Your task to perform on an android device: toggle notifications settings in the gmail app Image 0: 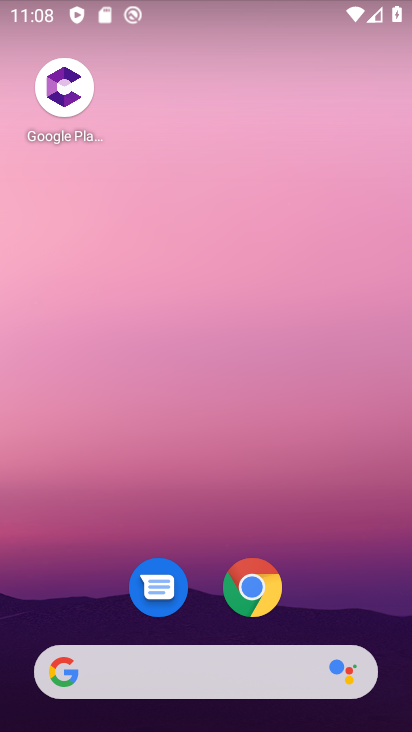
Step 0: drag from (348, 585) to (294, 11)
Your task to perform on an android device: toggle notifications settings in the gmail app Image 1: 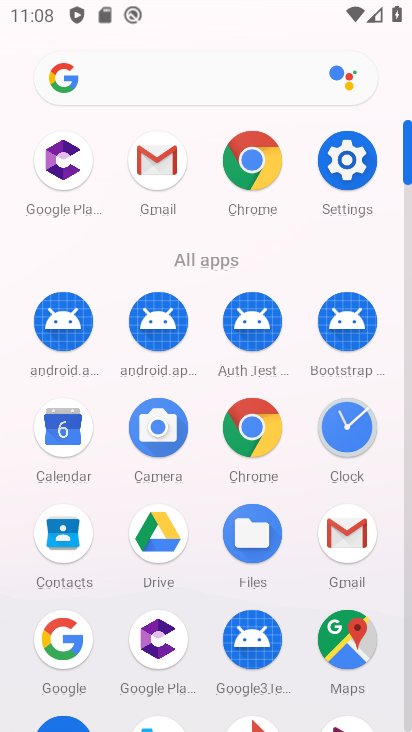
Step 1: click (347, 527)
Your task to perform on an android device: toggle notifications settings in the gmail app Image 2: 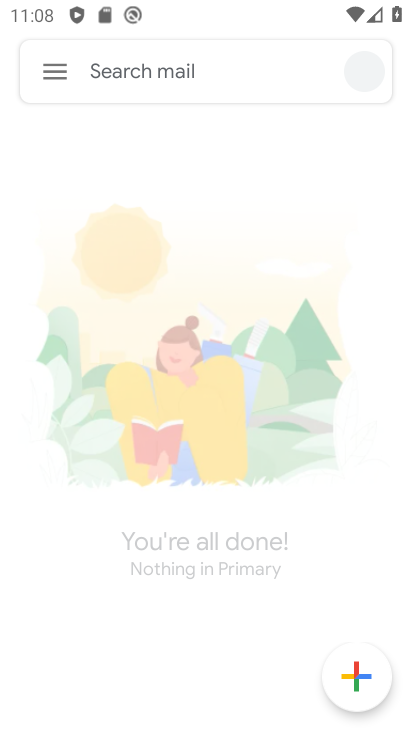
Step 2: click (55, 64)
Your task to perform on an android device: toggle notifications settings in the gmail app Image 3: 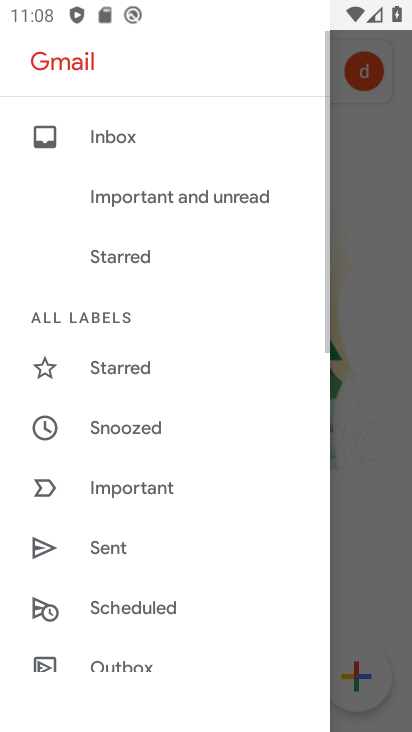
Step 3: drag from (199, 608) to (219, 193)
Your task to perform on an android device: toggle notifications settings in the gmail app Image 4: 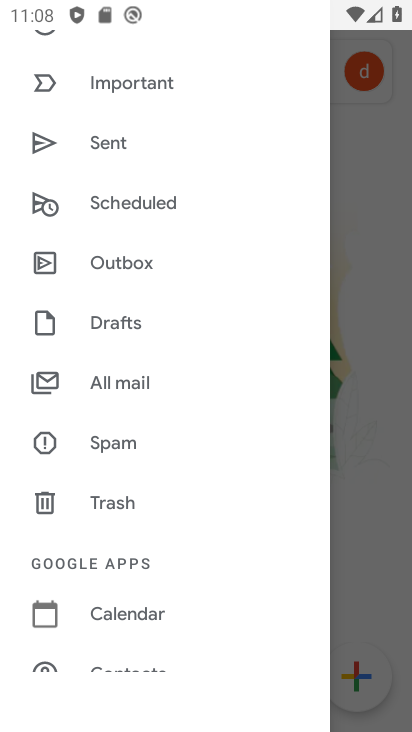
Step 4: drag from (191, 638) to (189, 230)
Your task to perform on an android device: toggle notifications settings in the gmail app Image 5: 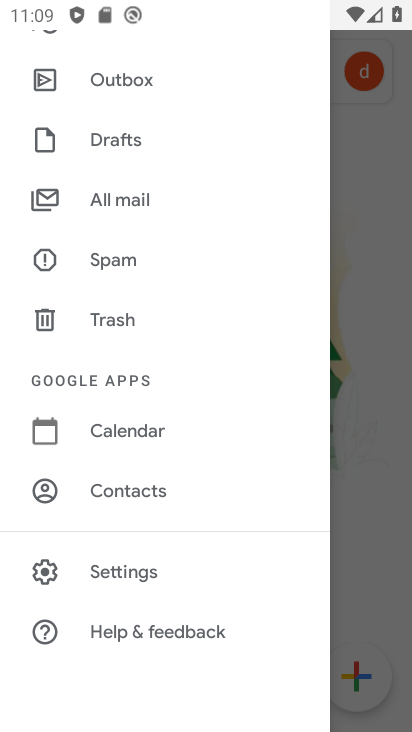
Step 5: click (122, 565)
Your task to perform on an android device: toggle notifications settings in the gmail app Image 6: 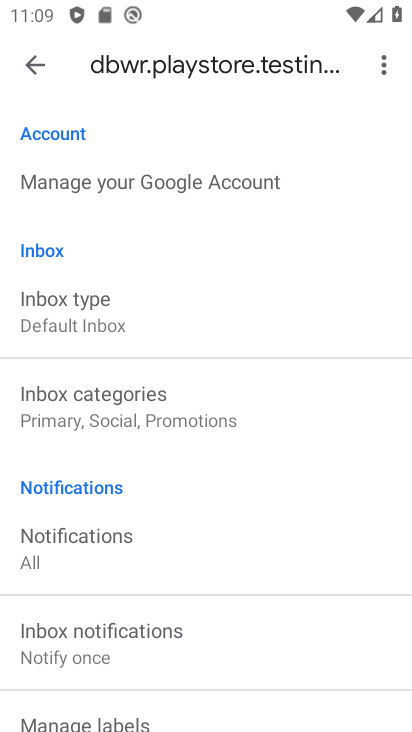
Step 6: drag from (202, 612) to (263, 260)
Your task to perform on an android device: toggle notifications settings in the gmail app Image 7: 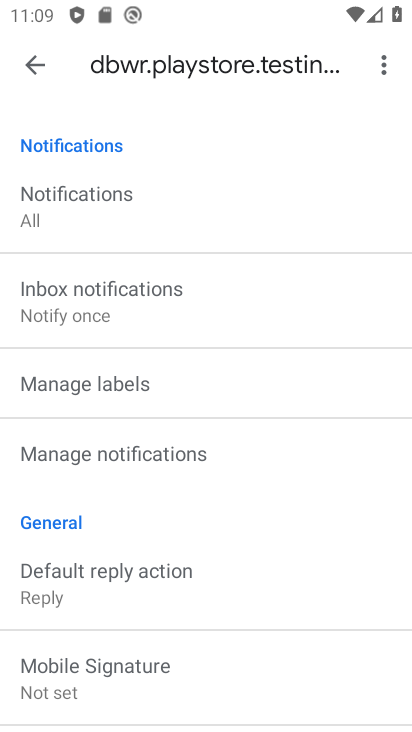
Step 7: click (179, 447)
Your task to perform on an android device: toggle notifications settings in the gmail app Image 8: 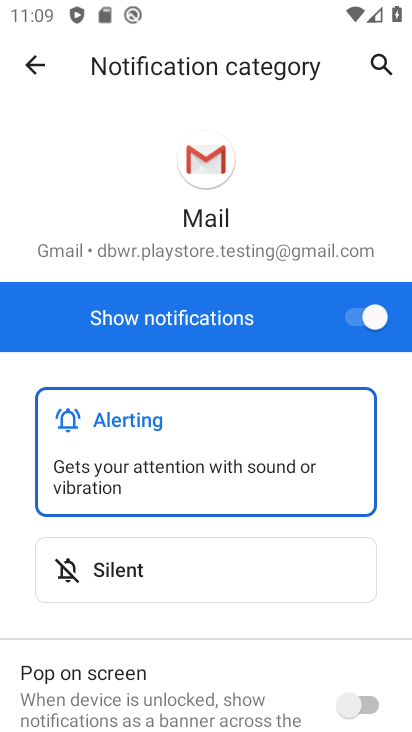
Step 8: click (381, 313)
Your task to perform on an android device: toggle notifications settings in the gmail app Image 9: 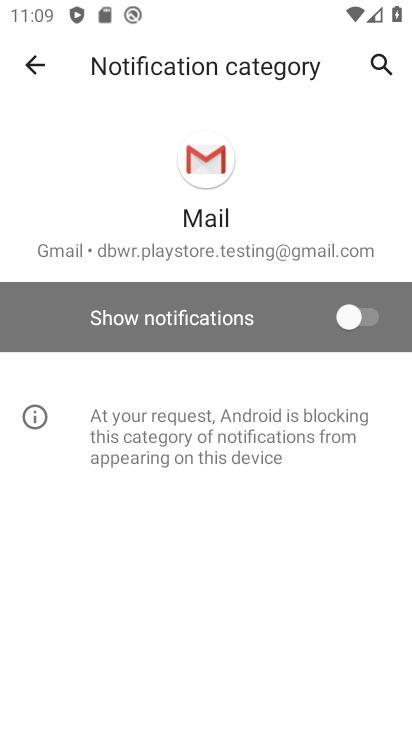
Step 9: task complete